Your task to perform on an android device: turn on wifi Image 0: 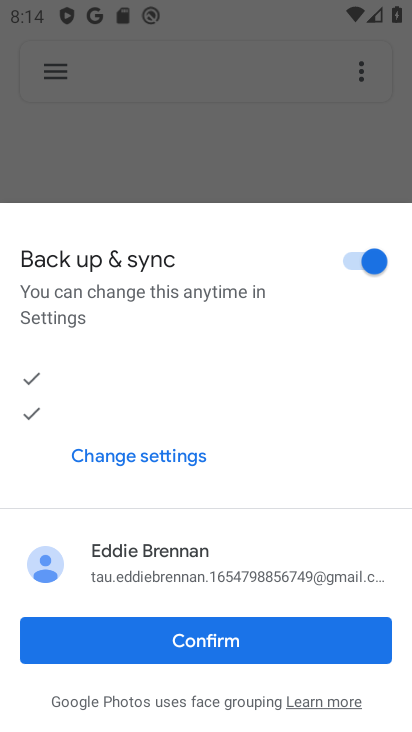
Step 0: press back button
Your task to perform on an android device: turn on wifi Image 1: 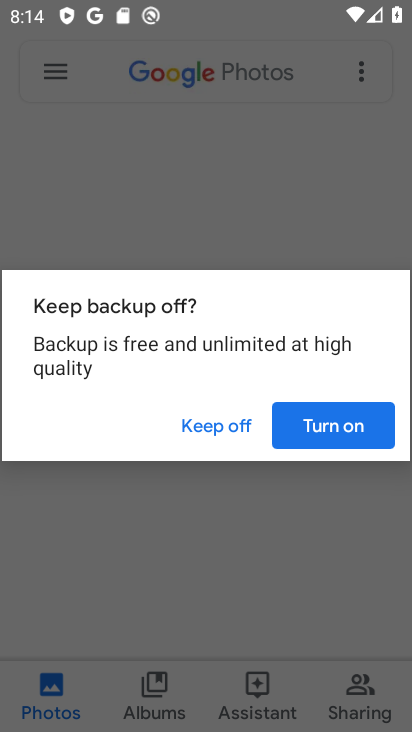
Step 1: press home button
Your task to perform on an android device: turn on wifi Image 2: 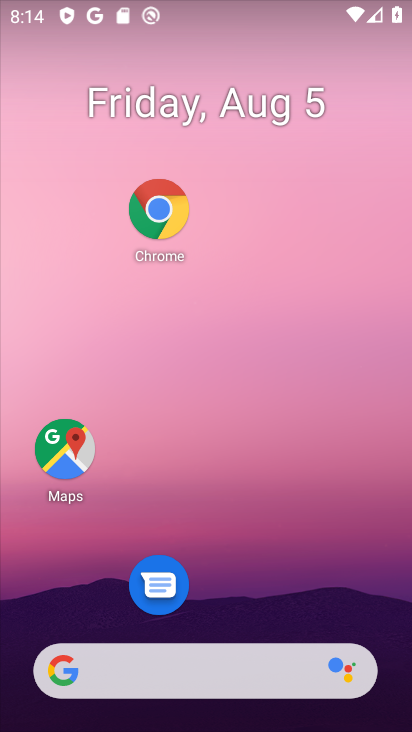
Step 2: drag from (272, 639) to (184, 167)
Your task to perform on an android device: turn on wifi Image 3: 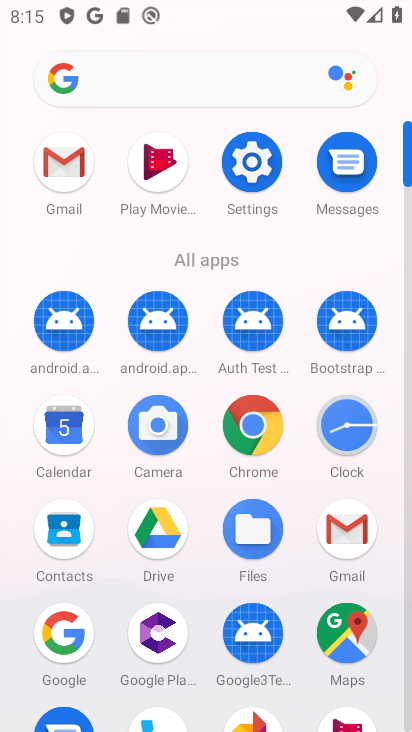
Step 3: click (243, 161)
Your task to perform on an android device: turn on wifi Image 4: 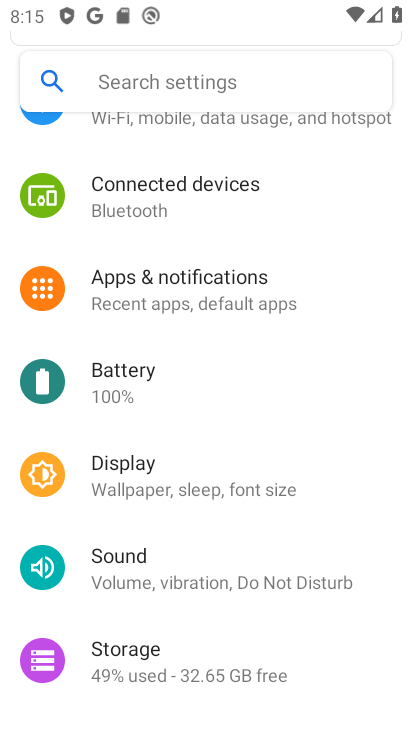
Step 4: drag from (243, 161) to (284, 573)
Your task to perform on an android device: turn on wifi Image 5: 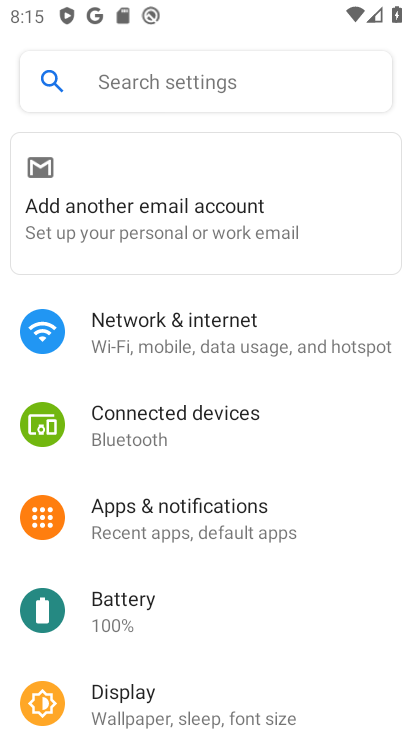
Step 5: click (215, 359)
Your task to perform on an android device: turn on wifi Image 6: 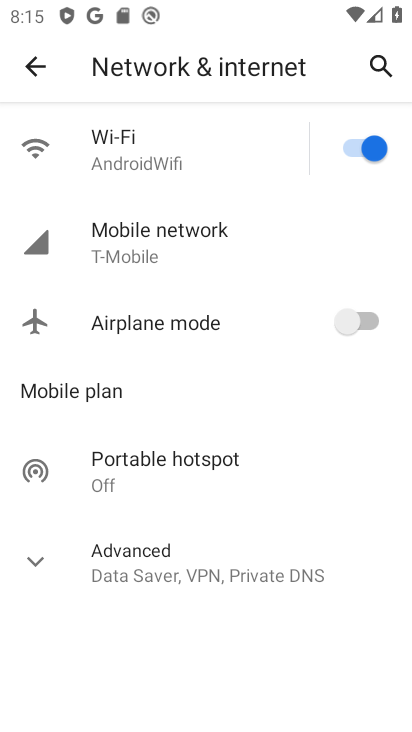
Step 6: task complete